Your task to perform on an android device: uninstall "DoorDash - Dasher" Image 0: 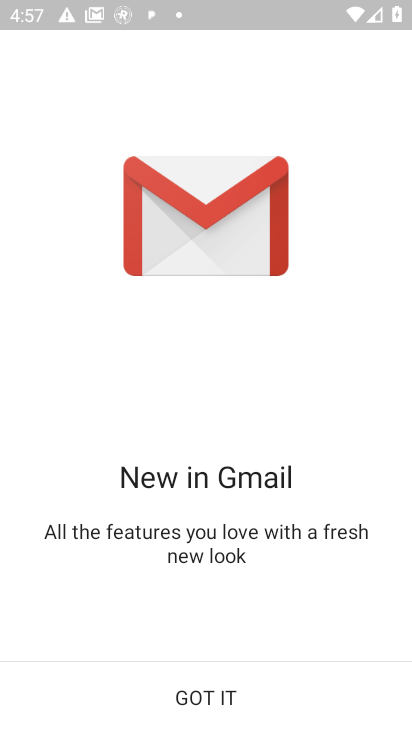
Step 0: press home button
Your task to perform on an android device: uninstall "DoorDash - Dasher" Image 1: 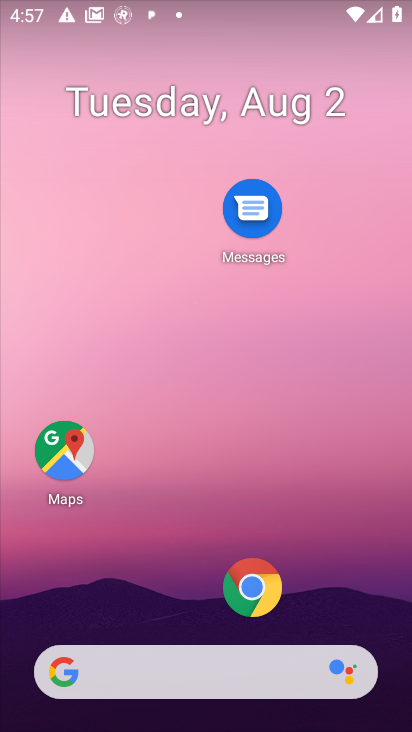
Step 1: drag from (176, 596) to (200, 145)
Your task to perform on an android device: uninstall "DoorDash - Dasher" Image 2: 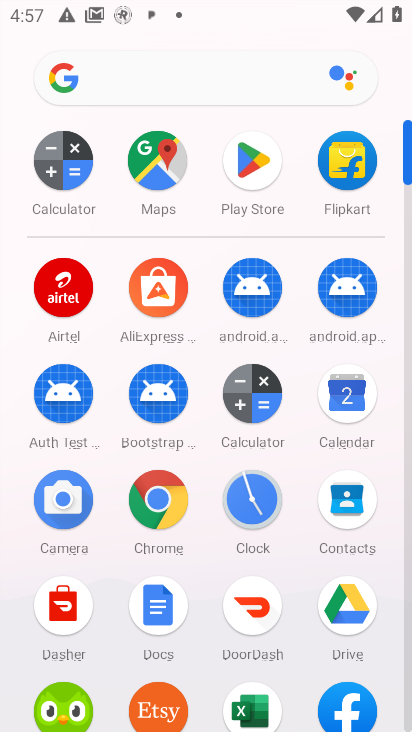
Step 2: click (238, 156)
Your task to perform on an android device: uninstall "DoorDash - Dasher" Image 3: 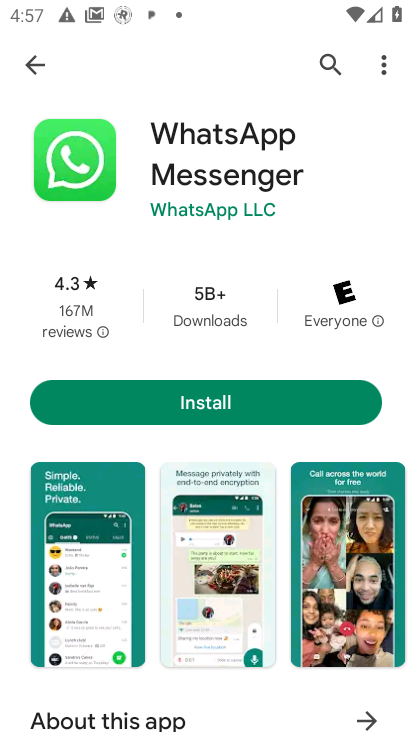
Step 3: click (320, 57)
Your task to perform on an android device: uninstall "DoorDash - Dasher" Image 4: 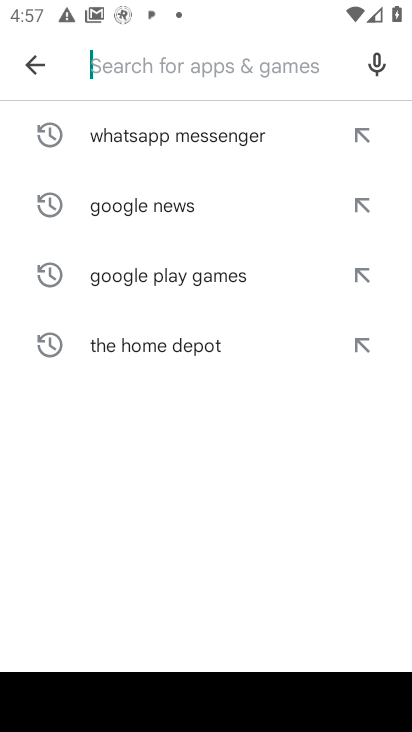
Step 4: type "DoorDash - Dasher"
Your task to perform on an android device: uninstall "DoorDash - Dasher" Image 5: 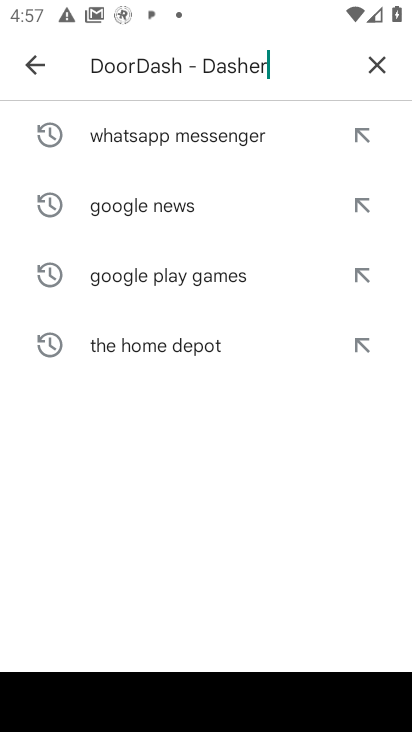
Step 5: type ""
Your task to perform on an android device: uninstall "DoorDash - Dasher" Image 6: 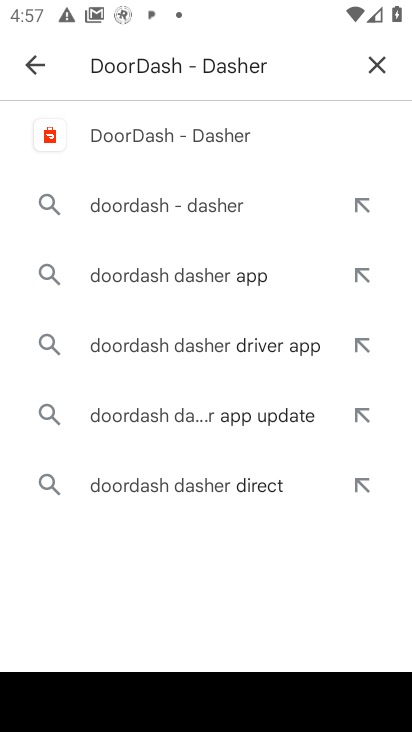
Step 6: click (170, 142)
Your task to perform on an android device: uninstall "DoorDash - Dasher" Image 7: 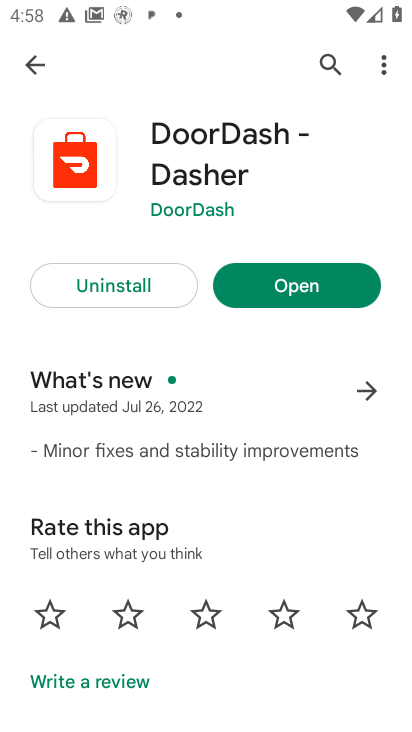
Step 7: click (142, 301)
Your task to perform on an android device: uninstall "DoorDash - Dasher" Image 8: 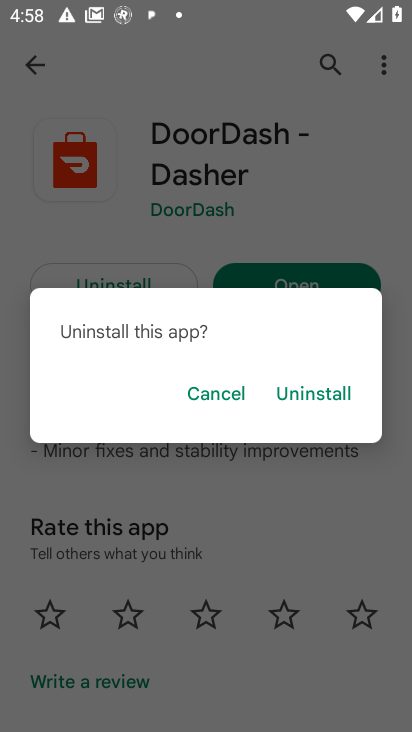
Step 8: click (282, 388)
Your task to perform on an android device: uninstall "DoorDash - Dasher" Image 9: 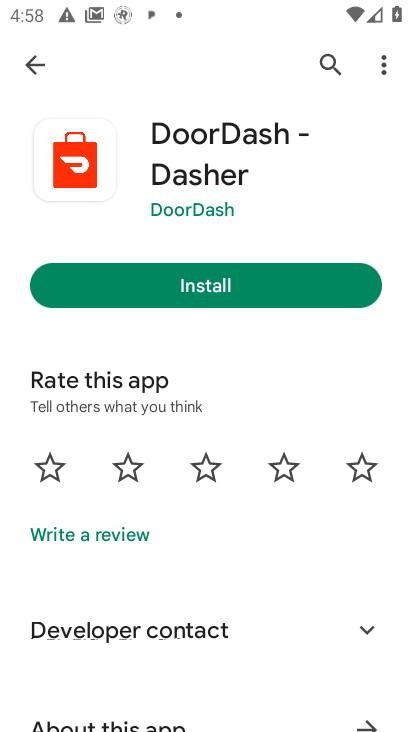
Step 9: task complete